Your task to perform on an android device: turn on bluetooth scan Image 0: 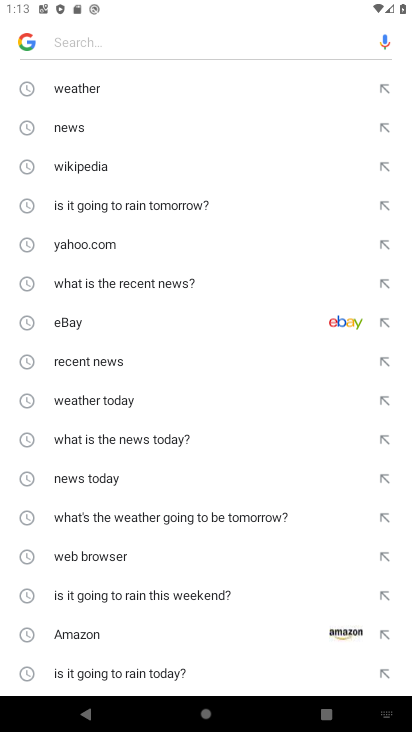
Step 0: press home button
Your task to perform on an android device: turn on bluetooth scan Image 1: 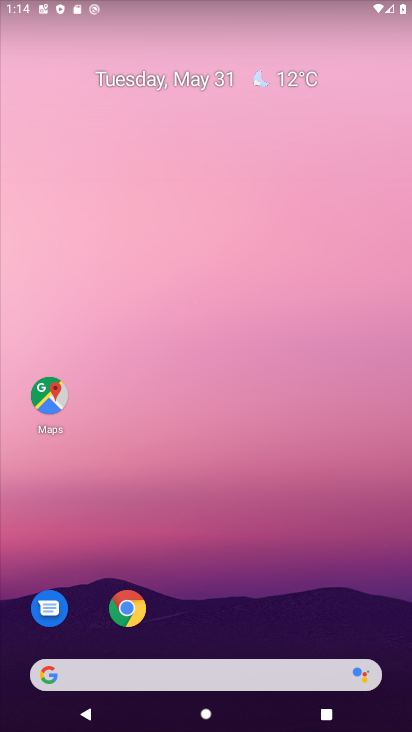
Step 1: drag from (264, 571) to (262, 163)
Your task to perform on an android device: turn on bluetooth scan Image 2: 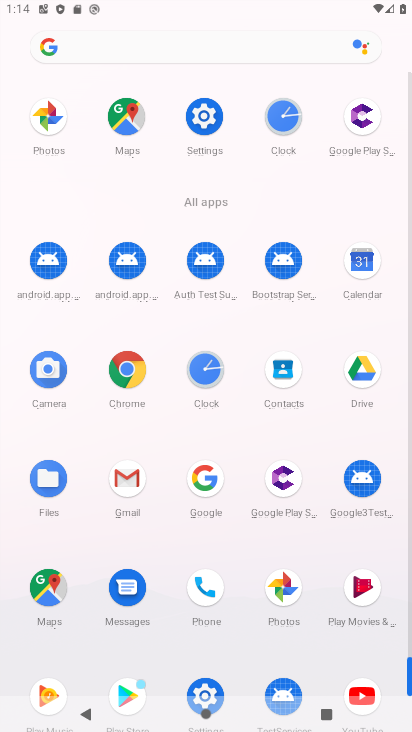
Step 2: click (205, 120)
Your task to perform on an android device: turn on bluetooth scan Image 3: 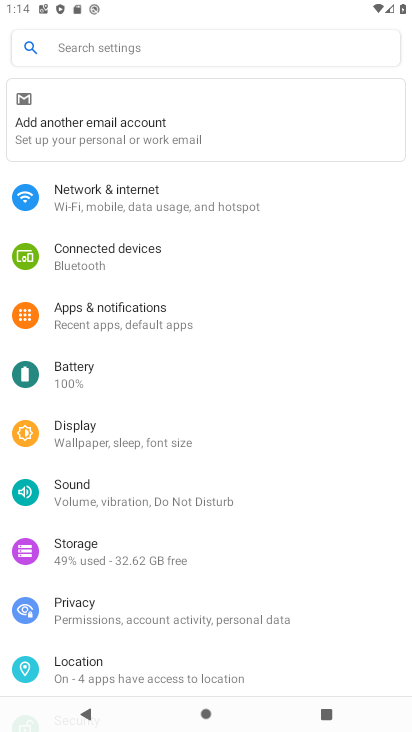
Step 3: drag from (251, 518) to (247, 182)
Your task to perform on an android device: turn on bluetooth scan Image 4: 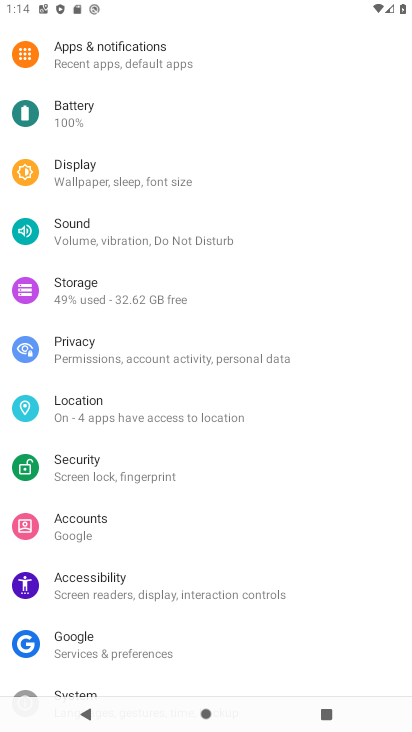
Step 4: drag from (188, 556) to (207, 159)
Your task to perform on an android device: turn on bluetooth scan Image 5: 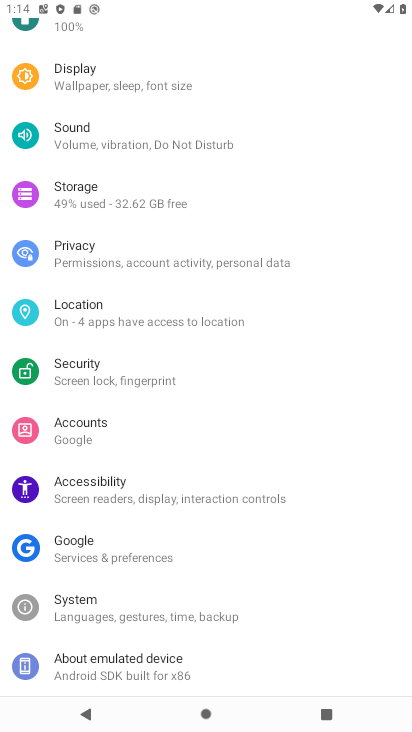
Step 5: click (127, 304)
Your task to perform on an android device: turn on bluetooth scan Image 6: 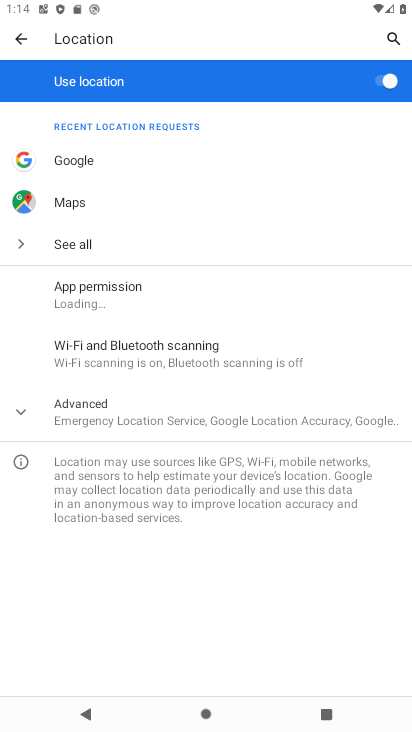
Step 6: click (160, 363)
Your task to perform on an android device: turn on bluetooth scan Image 7: 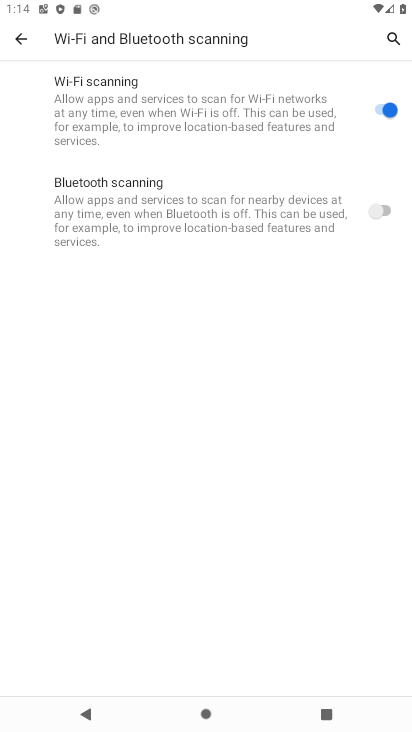
Step 7: click (389, 211)
Your task to perform on an android device: turn on bluetooth scan Image 8: 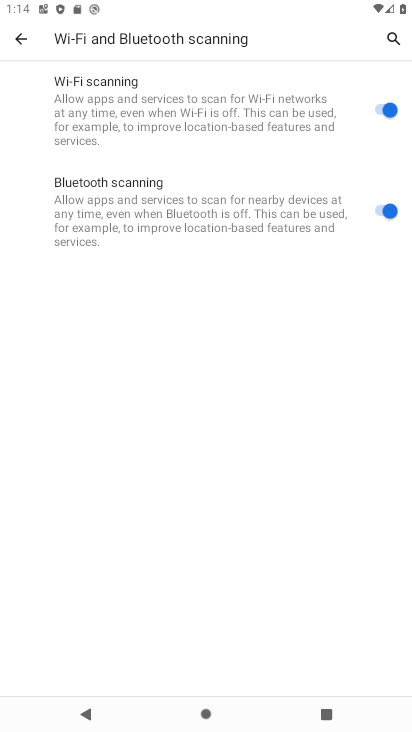
Step 8: task complete